Your task to perform on an android device: star an email in the gmail app Image 0: 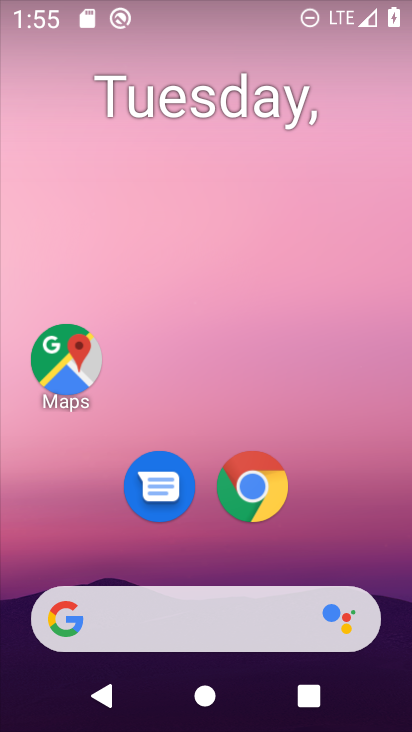
Step 0: drag from (203, 524) to (210, 42)
Your task to perform on an android device: star an email in the gmail app Image 1: 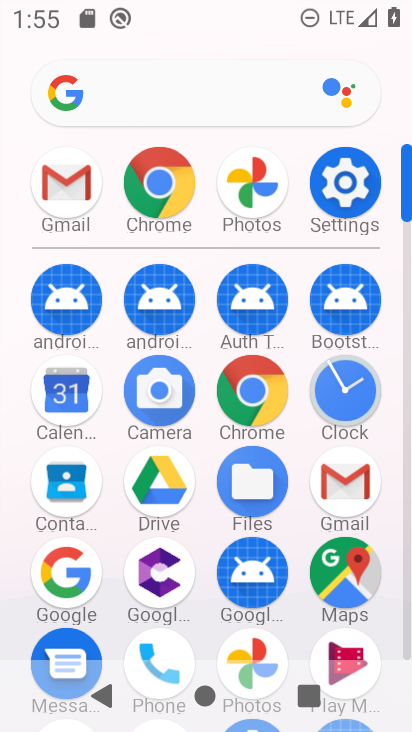
Step 1: drag from (202, 245) to (195, 61)
Your task to perform on an android device: star an email in the gmail app Image 2: 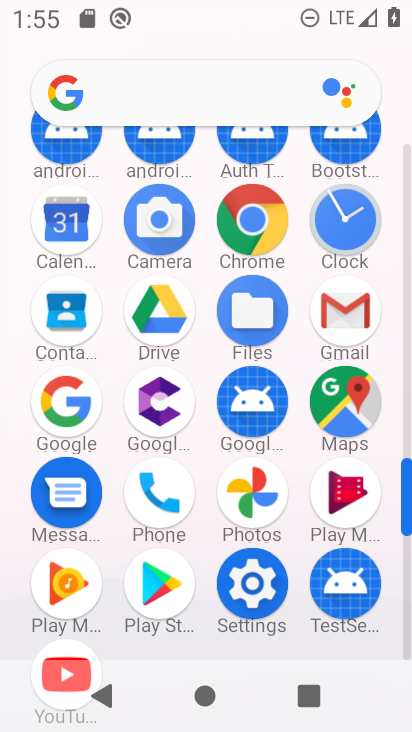
Step 2: click (342, 329)
Your task to perform on an android device: star an email in the gmail app Image 3: 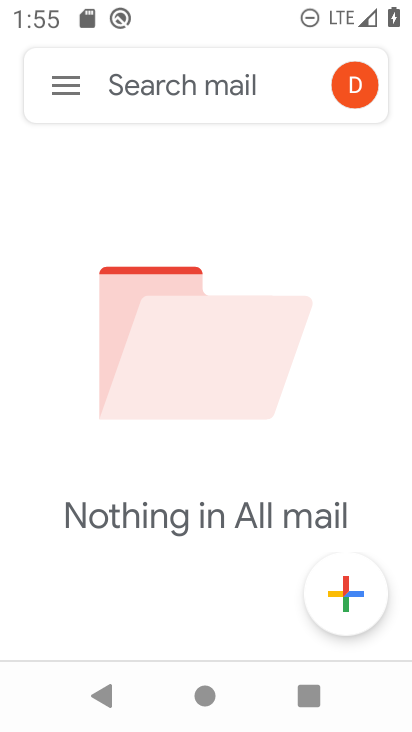
Step 3: click (88, 105)
Your task to perform on an android device: star an email in the gmail app Image 4: 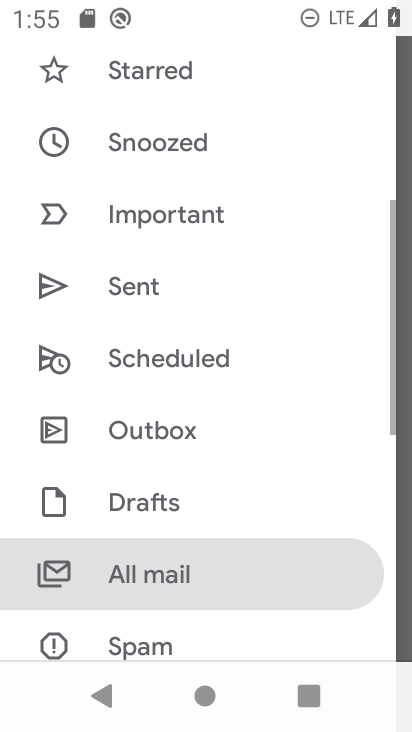
Step 4: task complete